Your task to perform on an android device: visit the assistant section in the google photos Image 0: 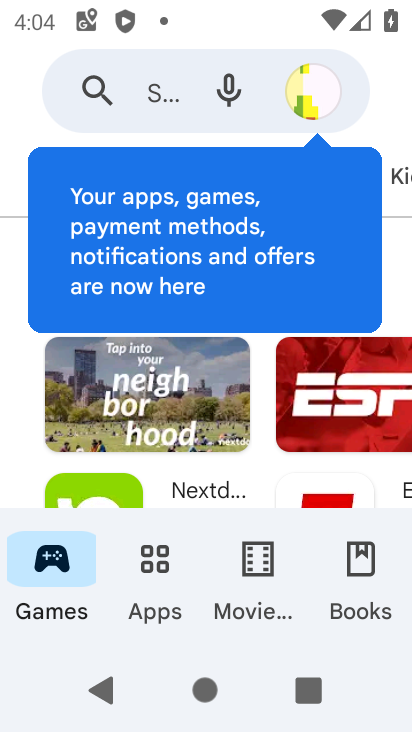
Step 0: task complete